Your task to perform on an android device: visit the assistant section in the google photos Image 0: 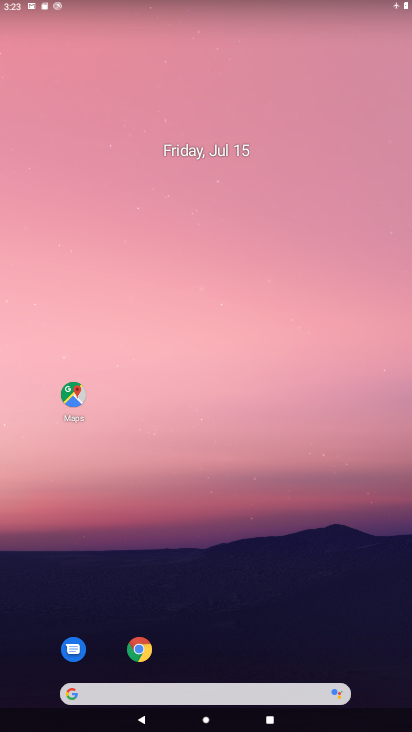
Step 0: drag from (378, 672) to (295, 87)
Your task to perform on an android device: visit the assistant section in the google photos Image 1: 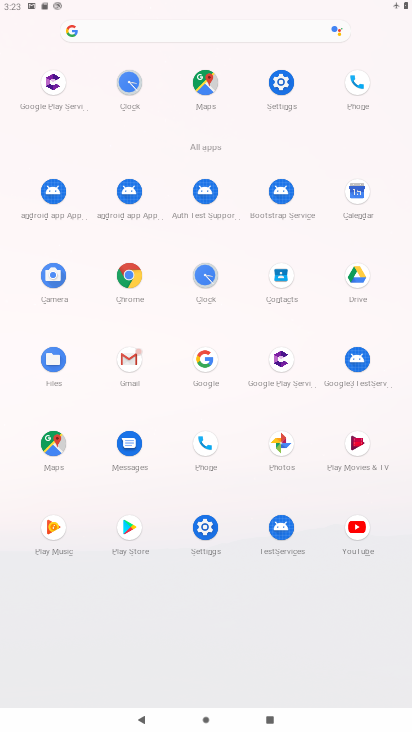
Step 1: click (282, 445)
Your task to perform on an android device: visit the assistant section in the google photos Image 2: 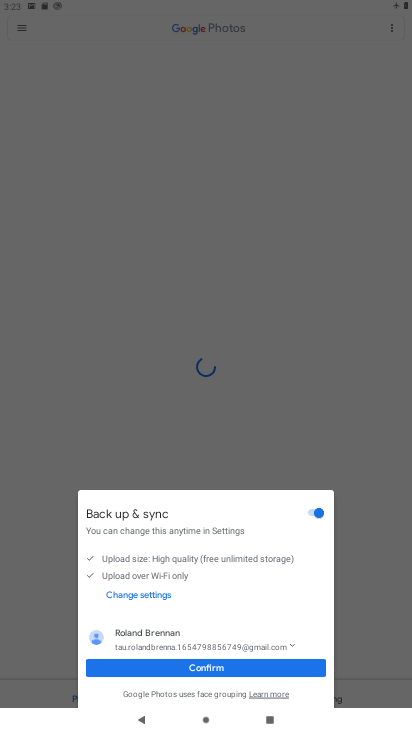
Step 2: click (208, 668)
Your task to perform on an android device: visit the assistant section in the google photos Image 3: 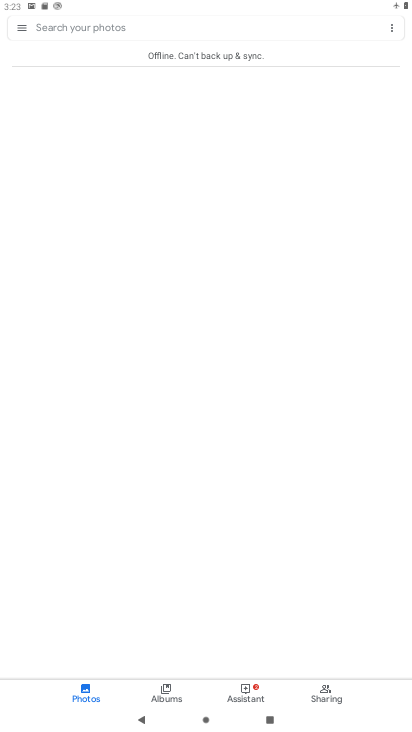
Step 3: click (246, 689)
Your task to perform on an android device: visit the assistant section in the google photos Image 4: 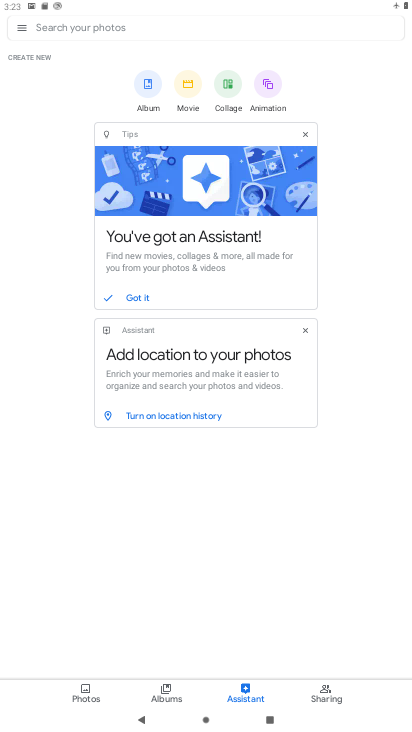
Step 4: task complete